Your task to perform on an android device: turn off location history Image 0: 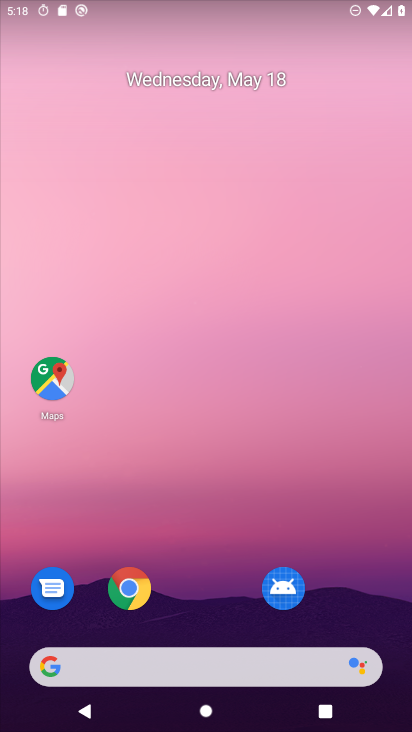
Step 0: drag from (201, 7) to (277, 66)
Your task to perform on an android device: turn off location history Image 1: 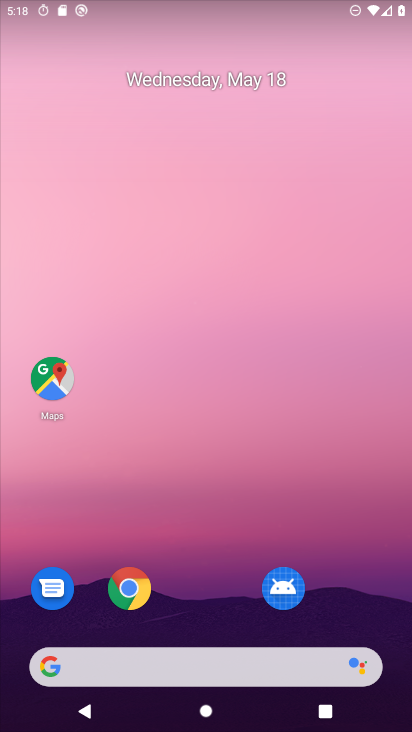
Step 1: click (45, 358)
Your task to perform on an android device: turn off location history Image 2: 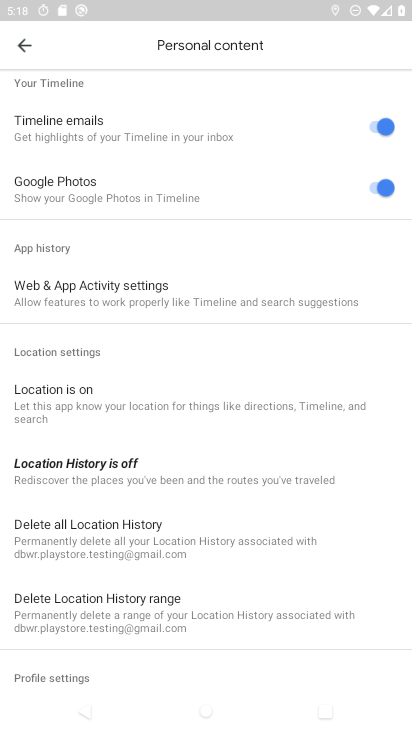
Step 2: click (150, 475)
Your task to perform on an android device: turn off location history Image 3: 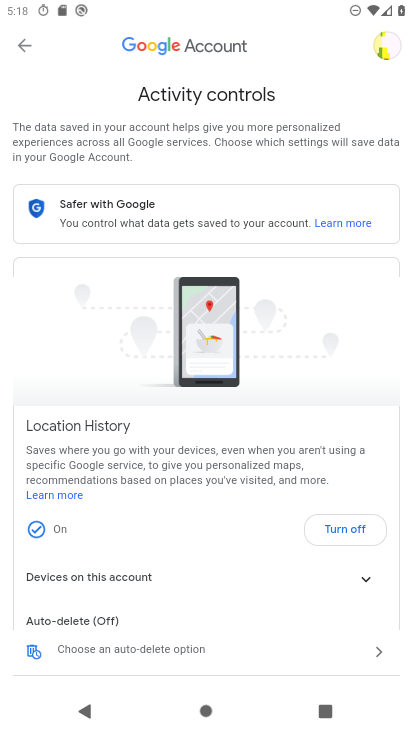
Step 3: click (360, 522)
Your task to perform on an android device: turn off location history Image 4: 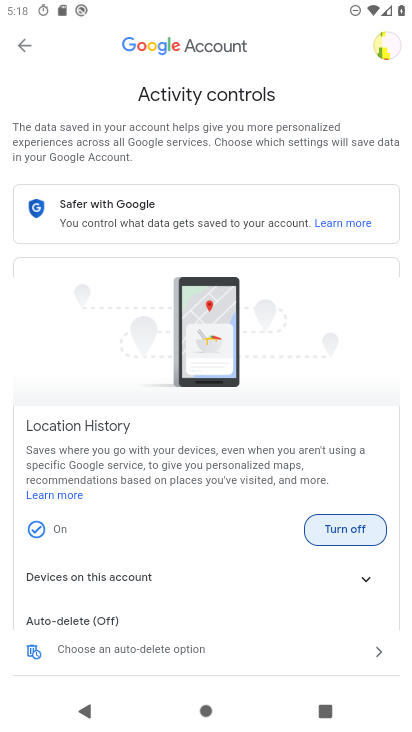
Step 4: click (342, 531)
Your task to perform on an android device: turn off location history Image 5: 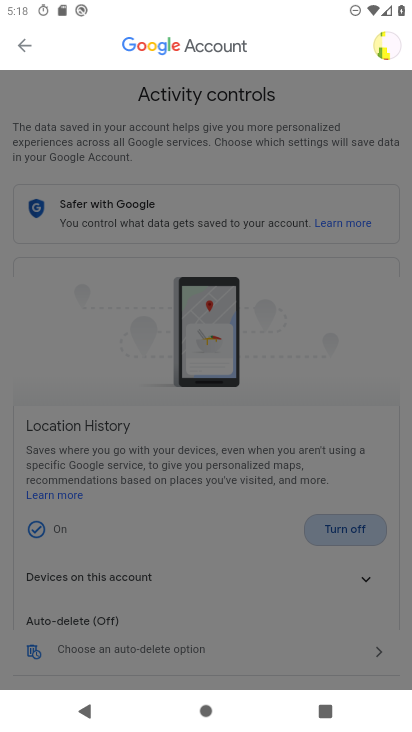
Step 5: click (342, 531)
Your task to perform on an android device: turn off location history Image 6: 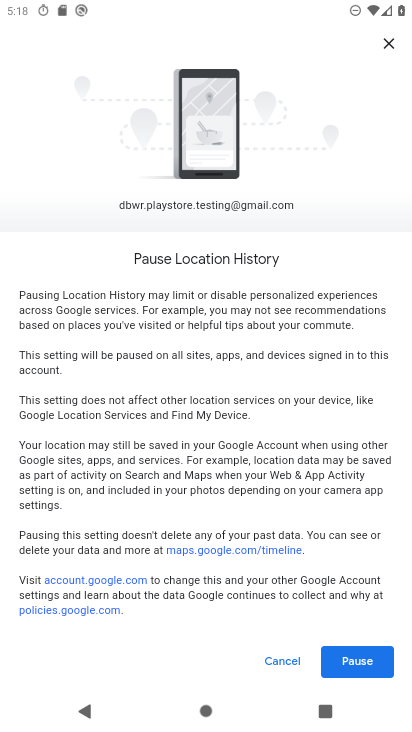
Step 6: click (356, 658)
Your task to perform on an android device: turn off location history Image 7: 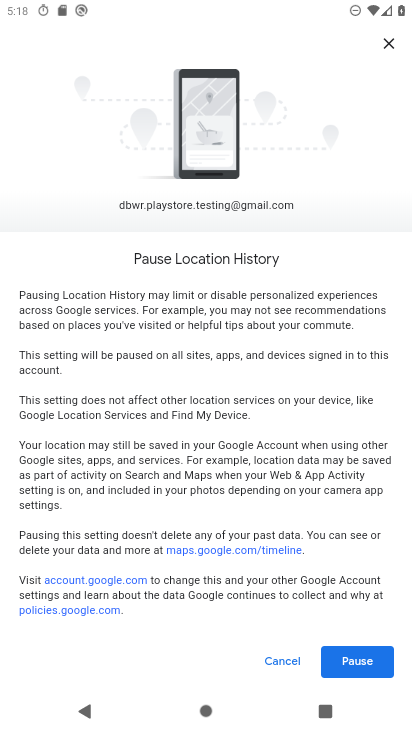
Step 7: click (356, 658)
Your task to perform on an android device: turn off location history Image 8: 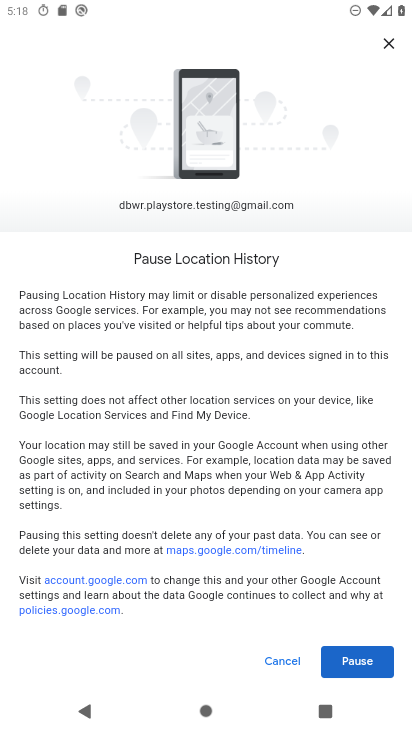
Step 8: click (356, 658)
Your task to perform on an android device: turn off location history Image 9: 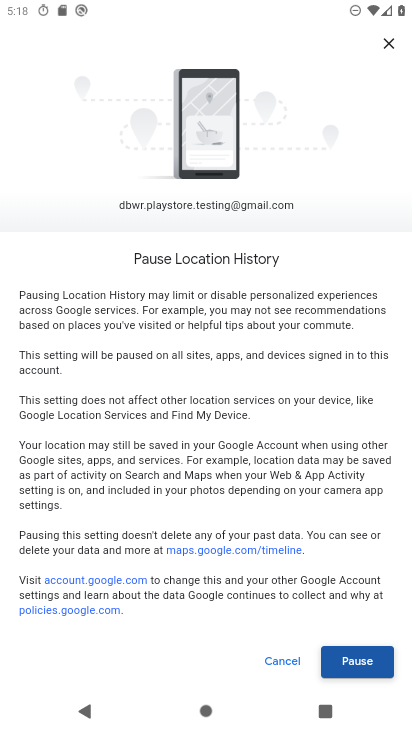
Step 9: click (356, 658)
Your task to perform on an android device: turn off location history Image 10: 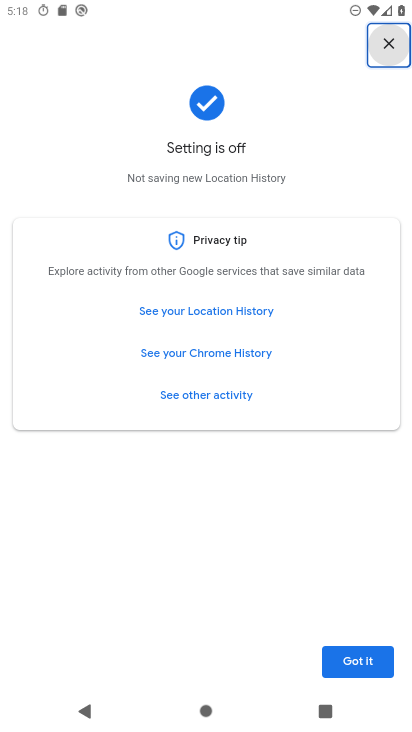
Step 10: click (380, 656)
Your task to perform on an android device: turn off location history Image 11: 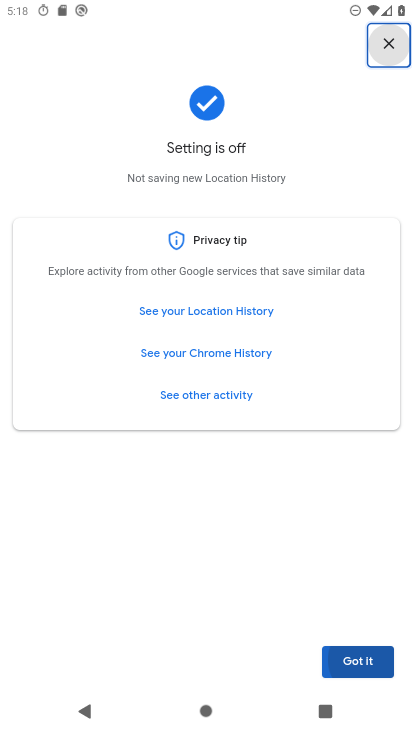
Step 11: click (380, 656)
Your task to perform on an android device: turn off location history Image 12: 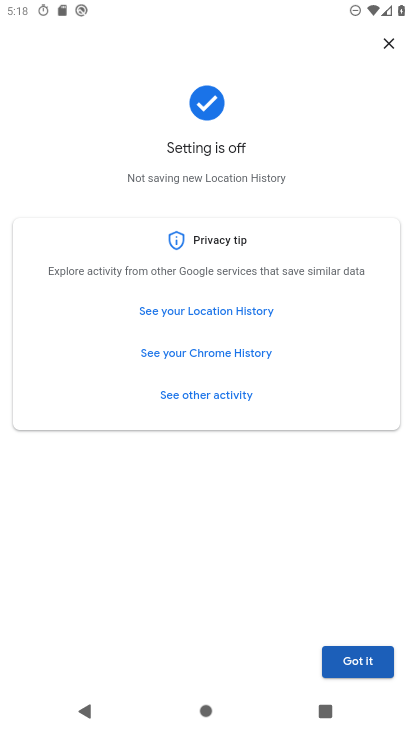
Step 12: click (380, 656)
Your task to perform on an android device: turn off location history Image 13: 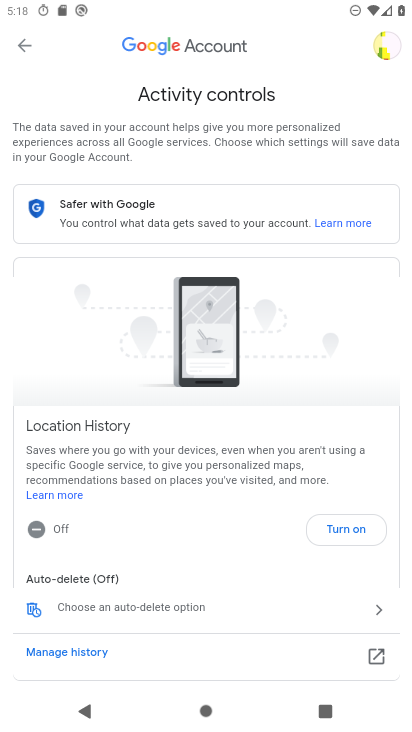
Step 13: task complete